Your task to perform on an android device: Search for vegetarian restaurants on Maps Image 0: 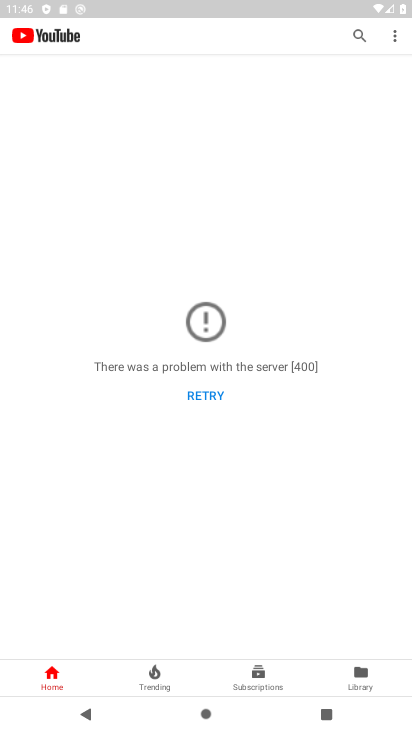
Step 0: press home button
Your task to perform on an android device: Search for vegetarian restaurants on Maps Image 1: 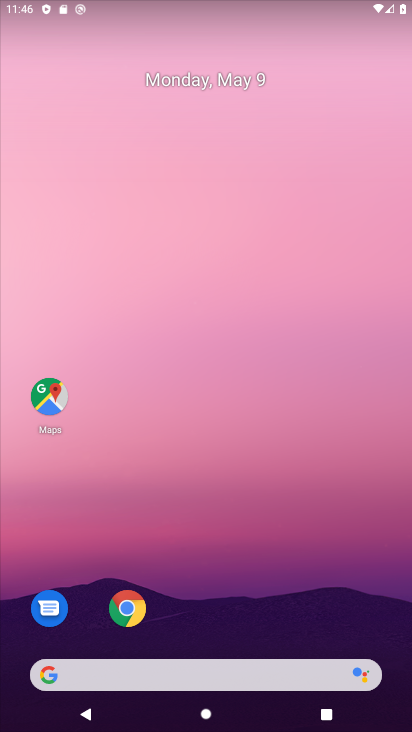
Step 1: click (46, 400)
Your task to perform on an android device: Search for vegetarian restaurants on Maps Image 2: 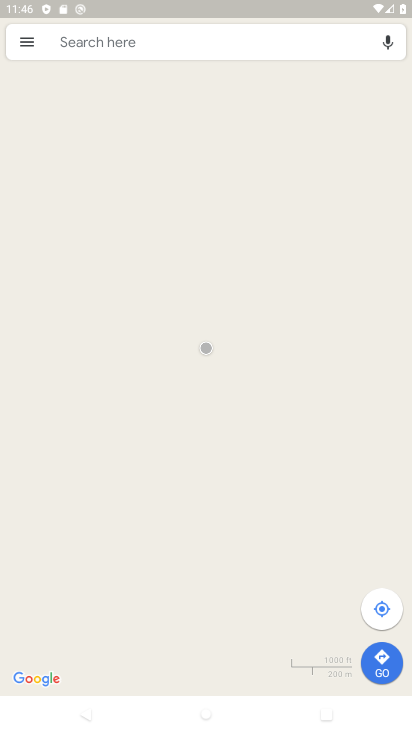
Step 2: click (123, 34)
Your task to perform on an android device: Search for vegetarian restaurants on Maps Image 3: 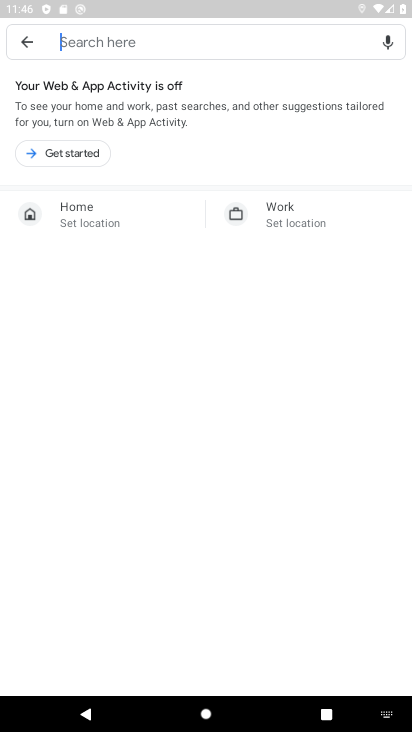
Step 3: click (67, 146)
Your task to perform on an android device: Search for vegetarian restaurants on Maps Image 4: 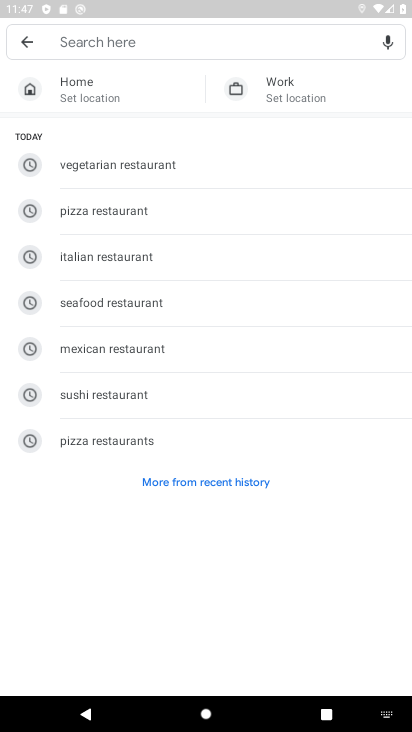
Step 4: click (69, 158)
Your task to perform on an android device: Search for vegetarian restaurants on Maps Image 5: 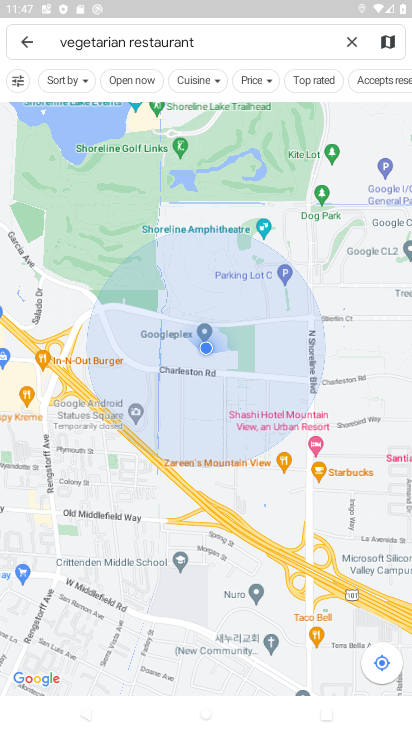
Step 5: task complete